Your task to perform on an android device: change text size in settings app Image 0: 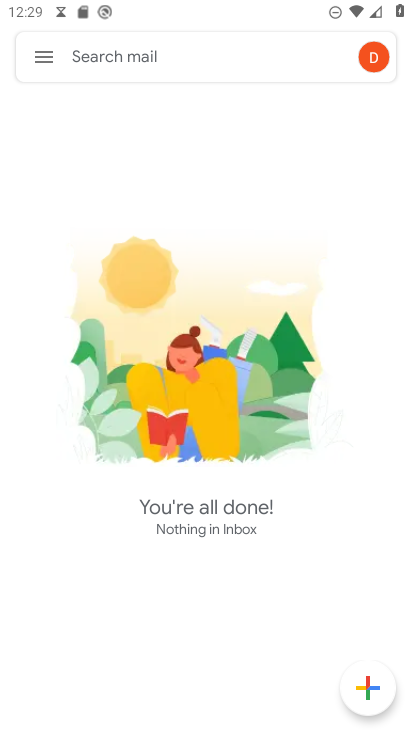
Step 0: press home button
Your task to perform on an android device: change text size in settings app Image 1: 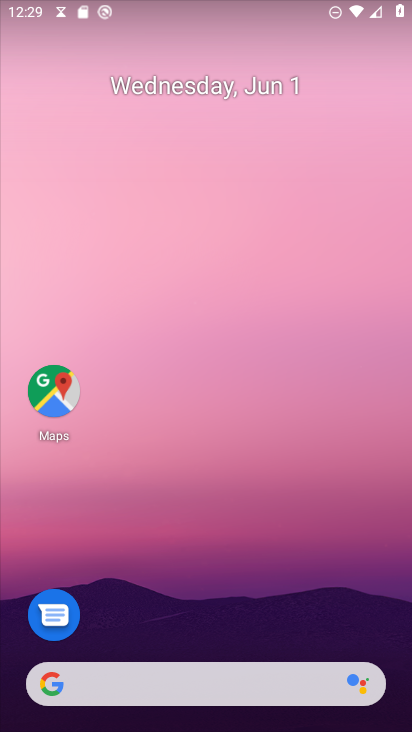
Step 1: drag from (224, 656) to (228, 108)
Your task to perform on an android device: change text size in settings app Image 2: 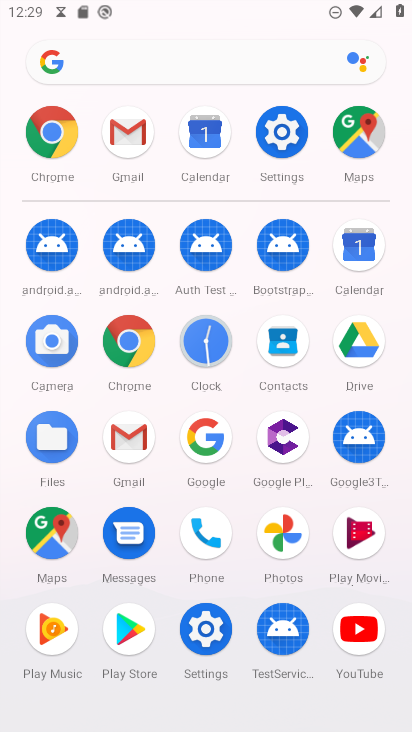
Step 2: click (287, 136)
Your task to perform on an android device: change text size in settings app Image 3: 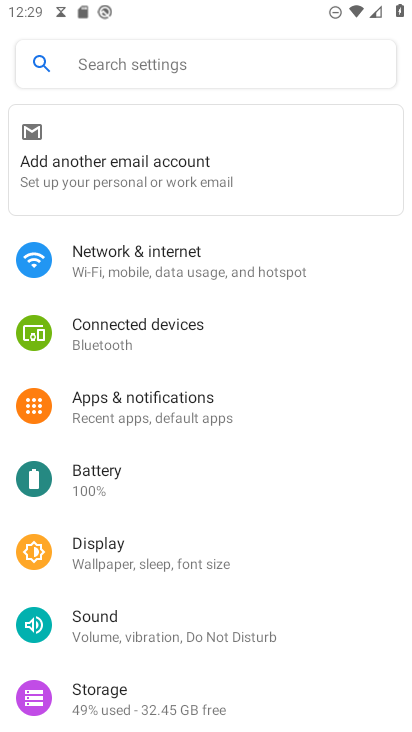
Step 3: click (145, 547)
Your task to perform on an android device: change text size in settings app Image 4: 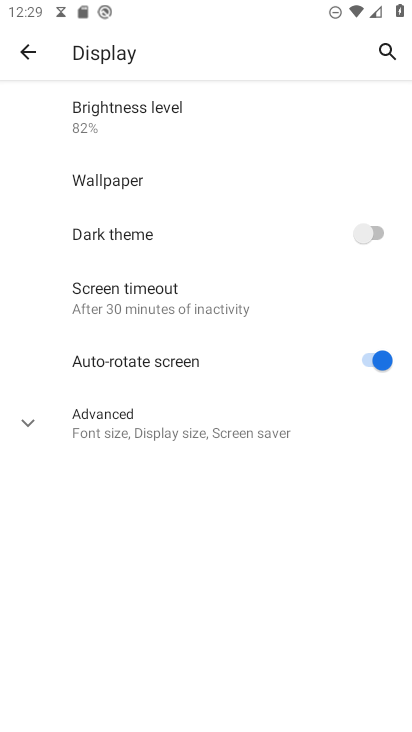
Step 4: click (164, 433)
Your task to perform on an android device: change text size in settings app Image 5: 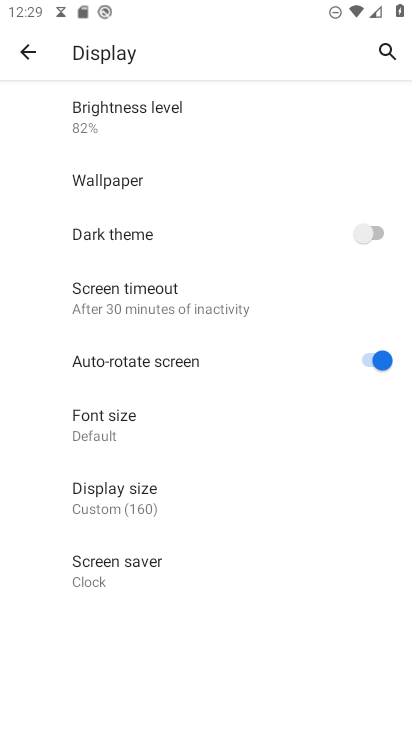
Step 5: click (153, 422)
Your task to perform on an android device: change text size in settings app Image 6: 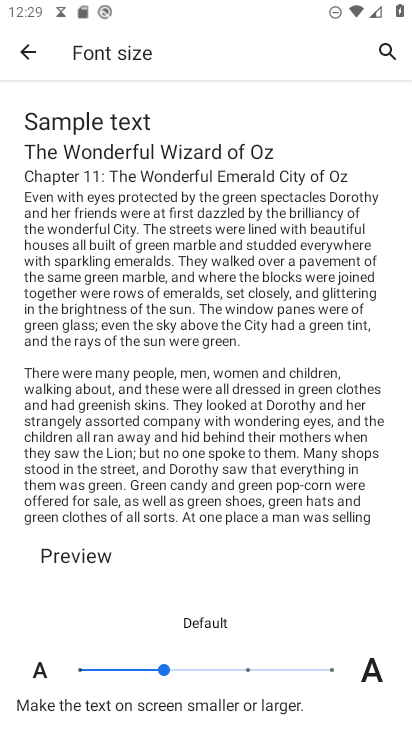
Step 6: drag from (253, 533) to (313, 280)
Your task to perform on an android device: change text size in settings app Image 7: 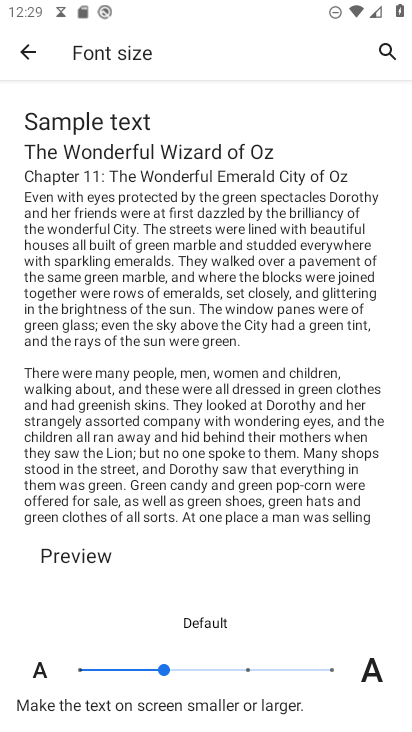
Step 7: click (195, 669)
Your task to perform on an android device: change text size in settings app Image 8: 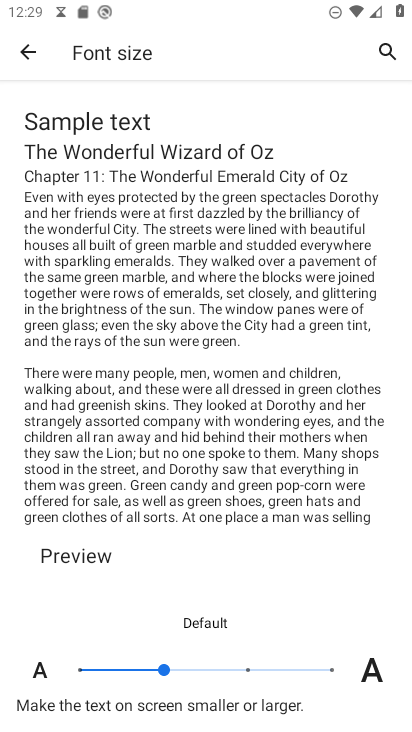
Step 8: task complete